Your task to perform on an android device: Search for pizza restaurants on Maps Image 0: 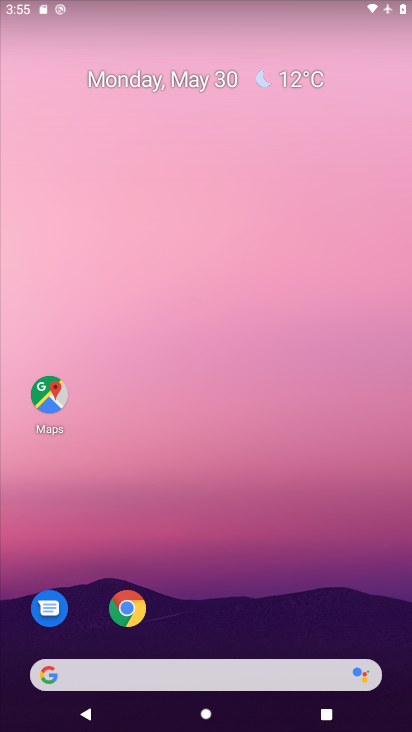
Step 0: click (49, 387)
Your task to perform on an android device: Search for pizza restaurants on Maps Image 1: 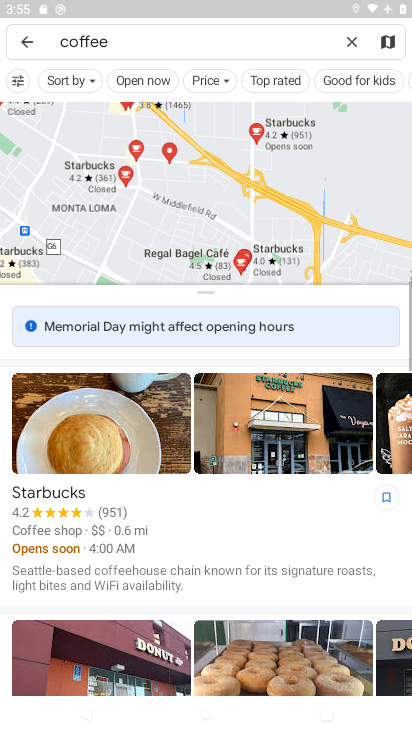
Step 1: click (346, 35)
Your task to perform on an android device: Search for pizza restaurants on Maps Image 2: 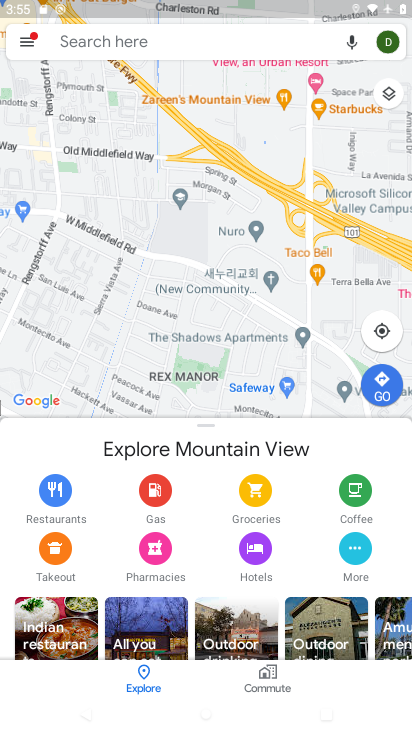
Step 2: click (156, 40)
Your task to perform on an android device: Search for pizza restaurants on Maps Image 3: 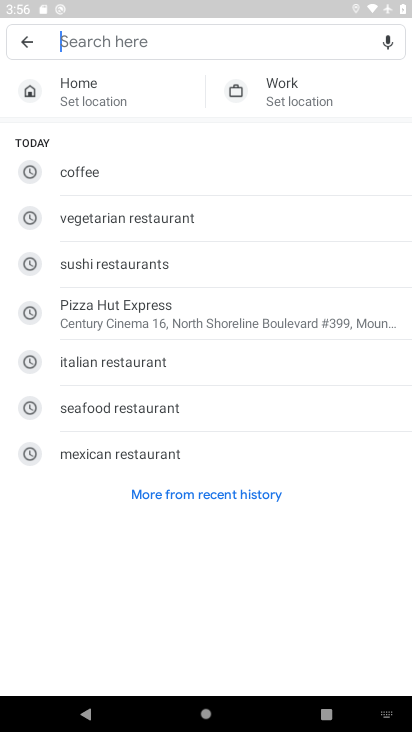
Step 3: type "pizza restaurants"
Your task to perform on an android device: Search for pizza restaurants on Maps Image 4: 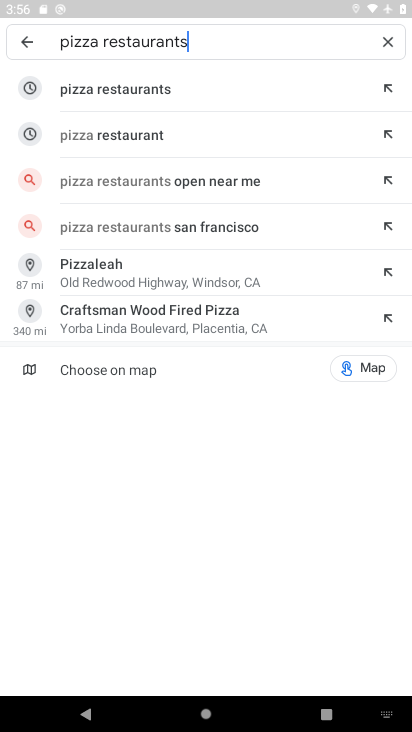
Step 4: click (231, 96)
Your task to perform on an android device: Search for pizza restaurants on Maps Image 5: 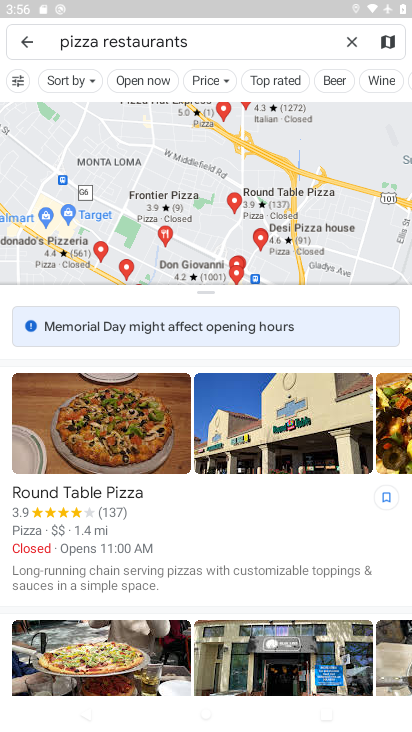
Step 5: task complete